Your task to perform on an android device: read, delete, or share a saved page in the chrome app Image 0: 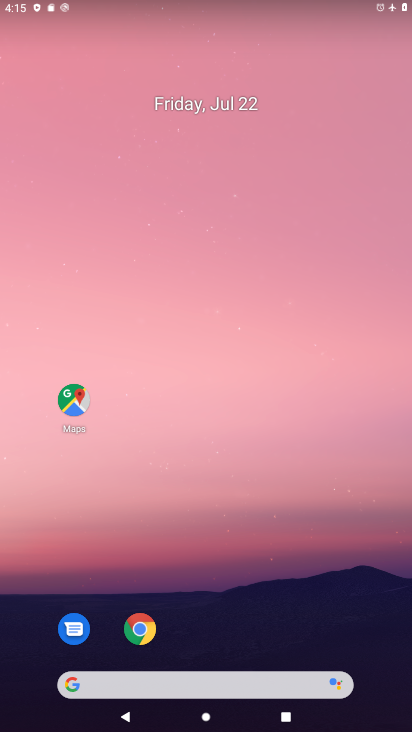
Step 0: drag from (234, 564) to (196, 5)
Your task to perform on an android device: read, delete, or share a saved page in the chrome app Image 1: 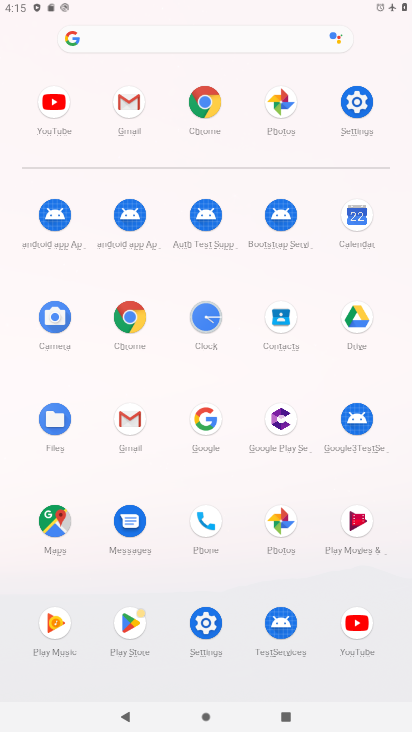
Step 1: click (201, 96)
Your task to perform on an android device: read, delete, or share a saved page in the chrome app Image 2: 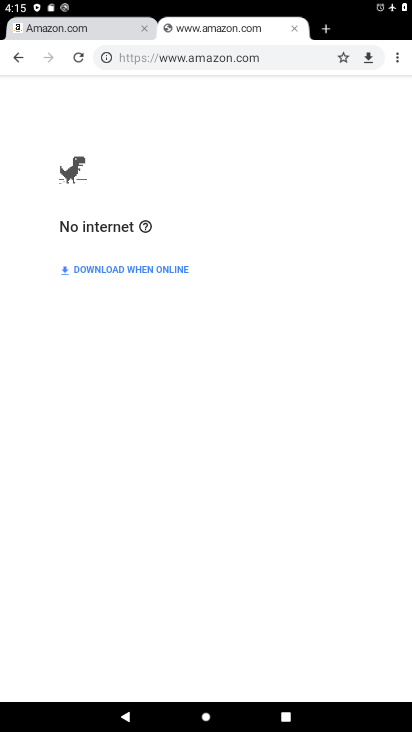
Step 2: task complete